Your task to perform on an android device: turn off location history Image 0: 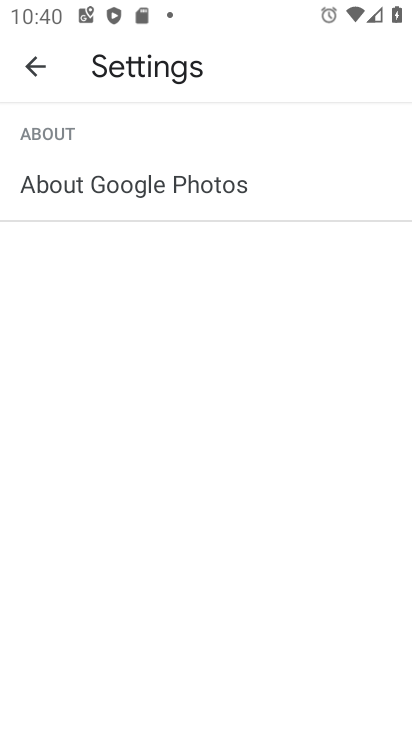
Step 0: press home button
Your task to perform on an android device: turn off location history Image 1: 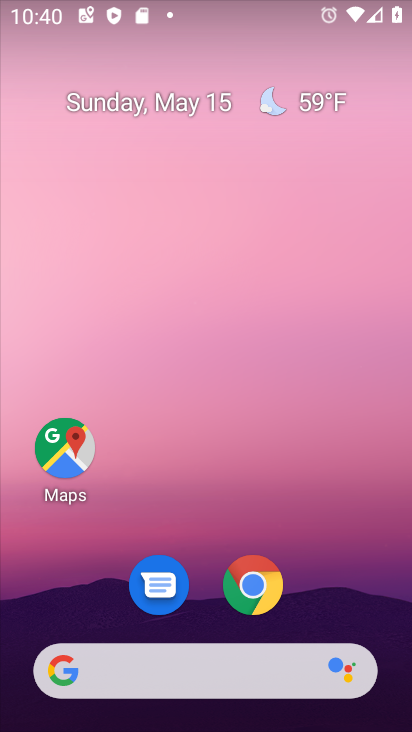
Step 1: drag from (204, 530) to (223, 52)
Your task to perform on an android device: turn off location history Image 2: 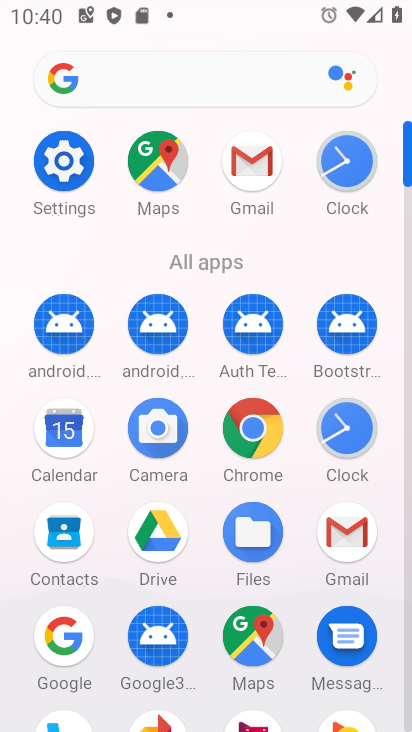
Step 2: click (71, 153)
Your task to perform on an android device: turn off location history Image 3: 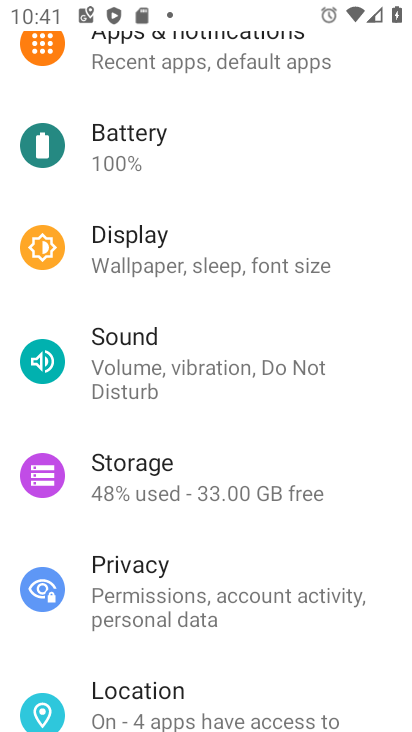
Step 3: click (236, 688)
Your task to perform on an android device: turn off location history Image 4: 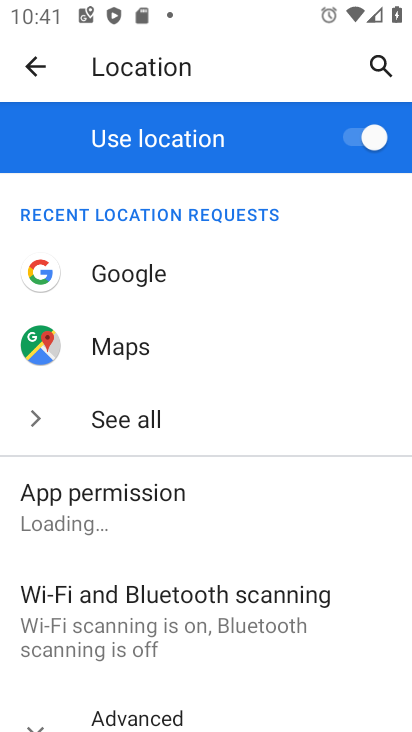
Step 4: drag from (239, 533) to (272, 185)
Your task to perform on an android device: turn off location history Image 5: 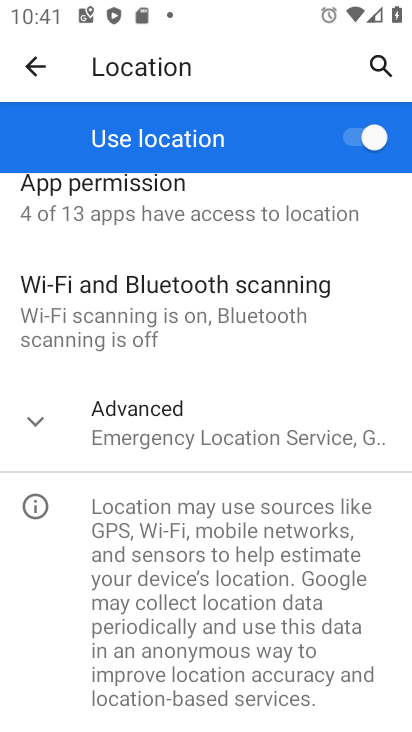
Step 5: click (32, 416)
Your task to perform on an android device: turn off location history Image 6: 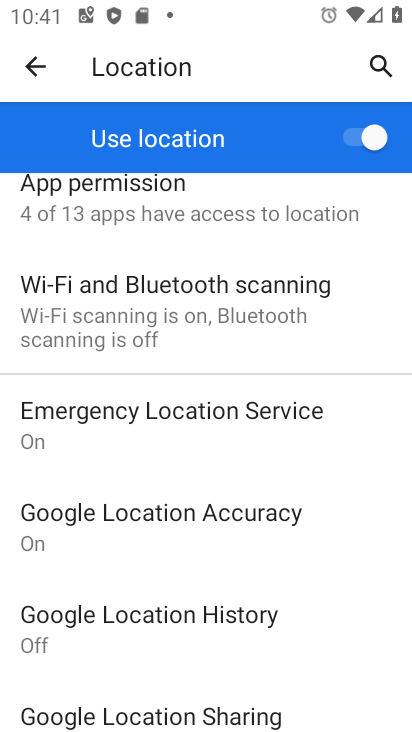
Step 6: task complete